Your task to perform on an android device: empty trash in google photos Image 0: 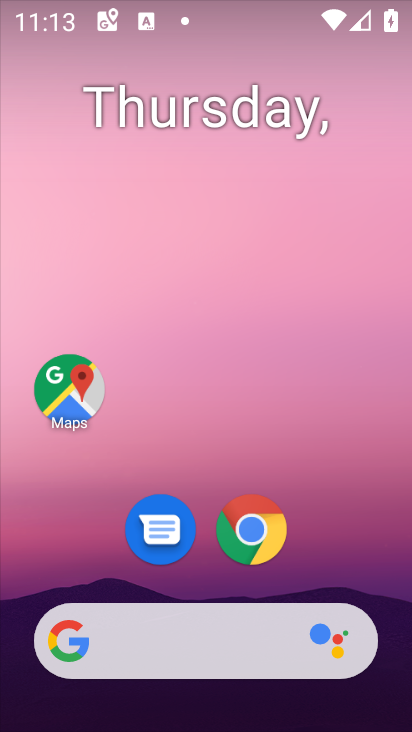
Step 0: drag from (253, 572) to (246, 58)
Your task to perform on an android device: empty trash in google photos Image 1: 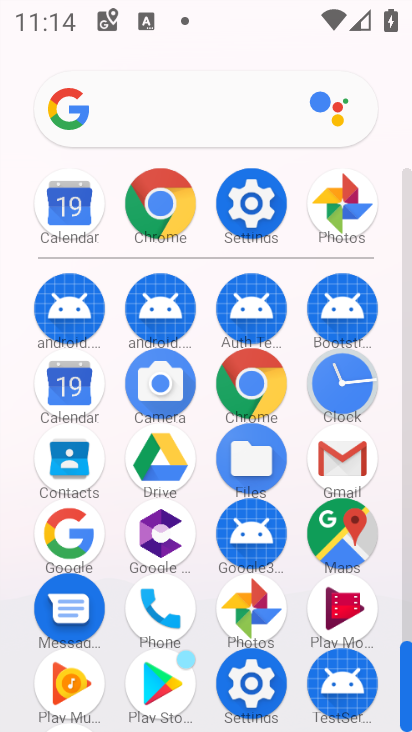
Step 1: click (258, 622)
Your task to perform on an android device: empty trash in google photos Image 2: 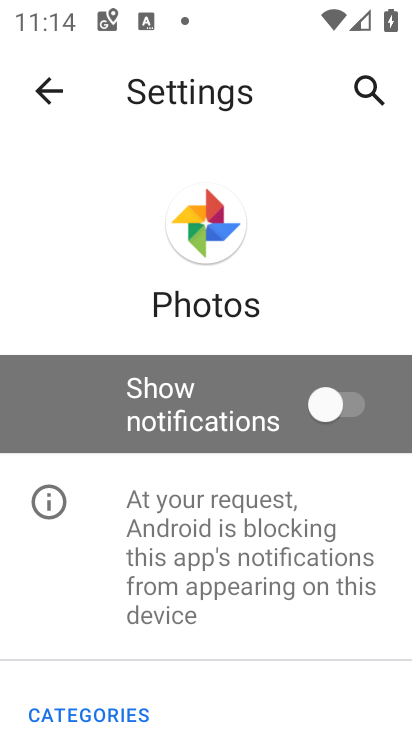
Step 2: drag from (190, 486) to (205, 218)
Your task to perform on an android device: empty trash in google photos Image 3: 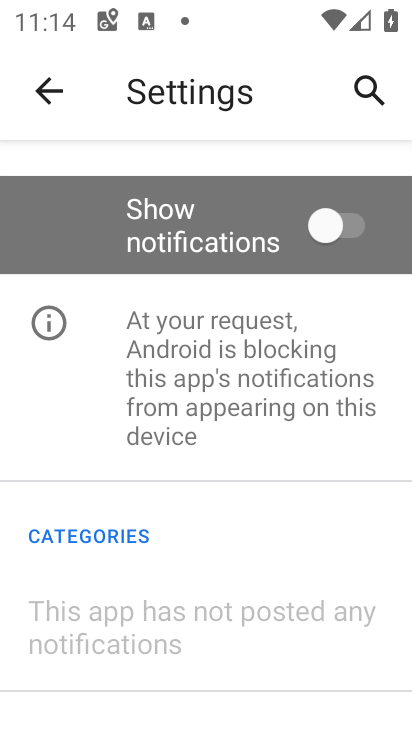
Step 3: click (46, 102)
Your task to perform on an android device: empty trash in google photos Image 4: 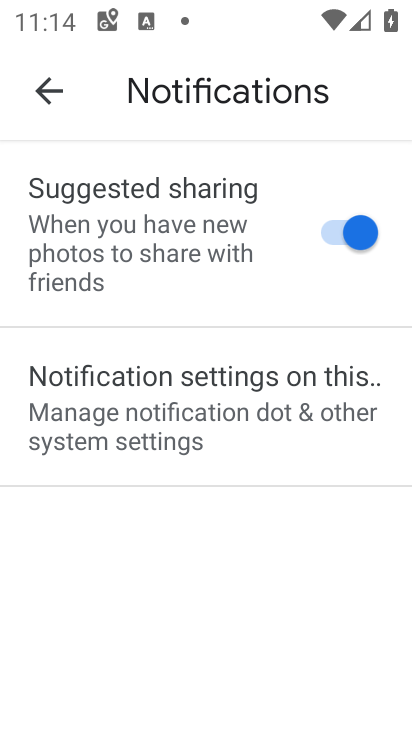
Step 4: click (49, 95)
Your task to perform on an android device: empty trash in google photos Image 5: 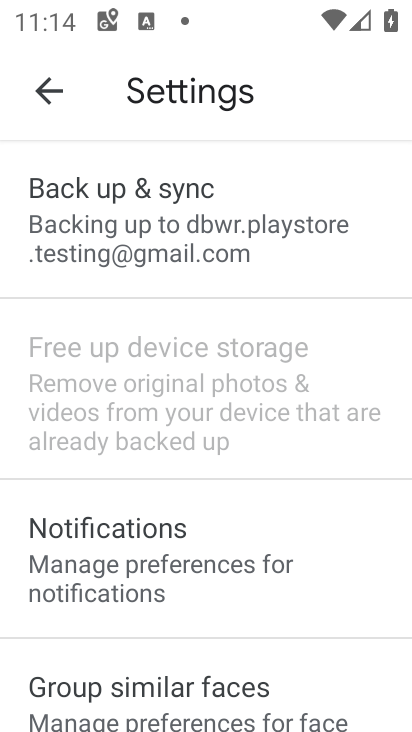
Step 5: click (49, 97)
Your task to perform on an android device: empty trash in google photos Image 6: 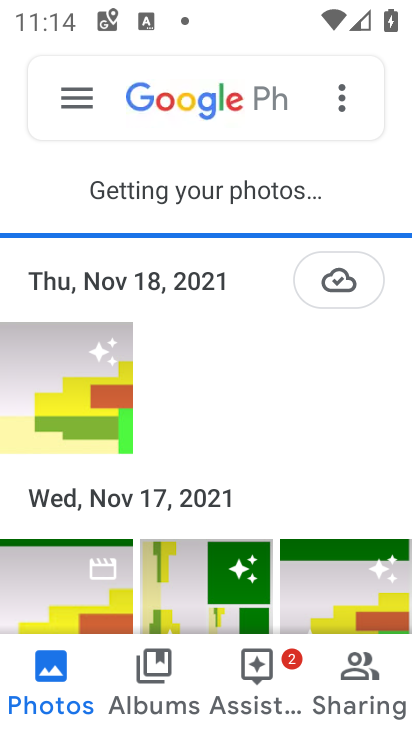
Step 6: click (67, 106)
Your task to perform on an android device: empty trash in google photos Image 7: 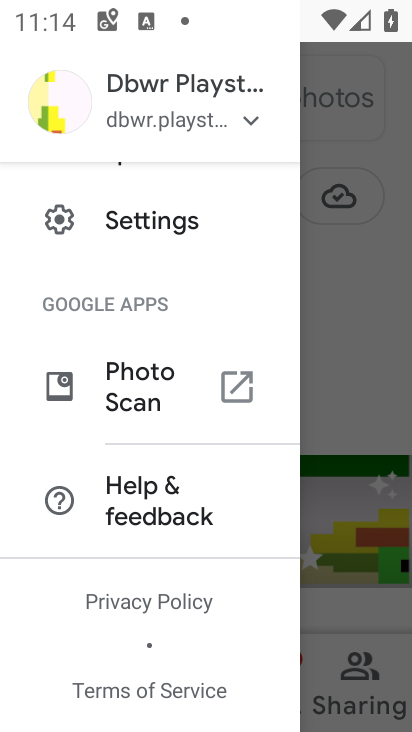
Step 7: drag from (116, 364) to (118, 708)
Your task to perform on an android device: empty trash in google photos Image 8: 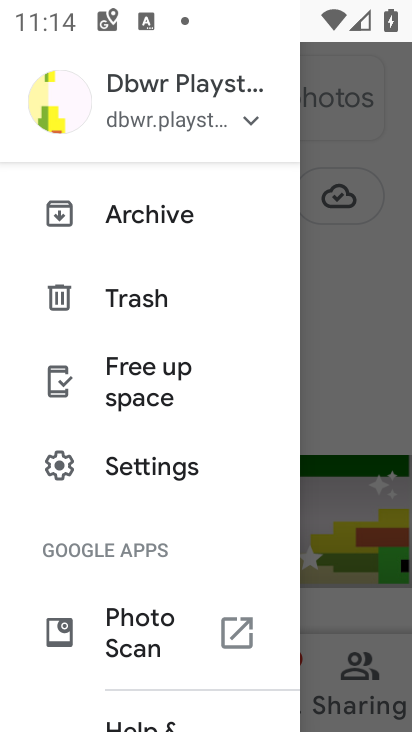
Step 8: click (169, 305)
Your task to perform on an android device: empty trash in google photos Image 9: 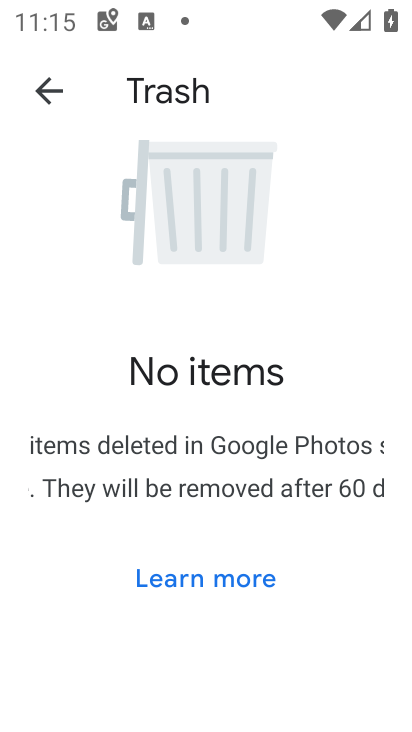
Step 9: task complete